Your task to perform on an android device: create a new album in the google photos Image 0: 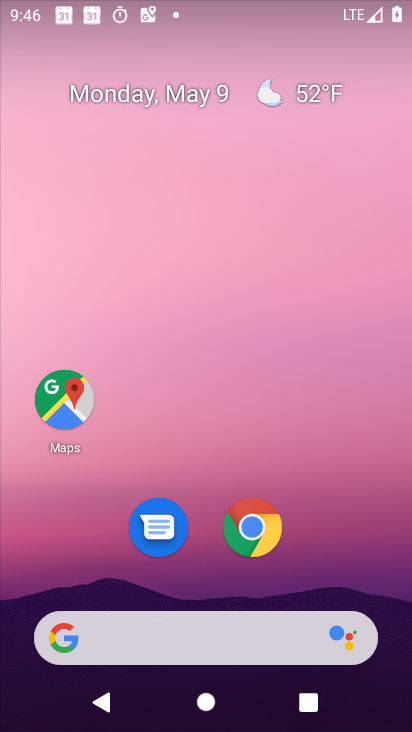
Step 0: drag from (358, 534) to (347, 145)
Your task to perform on an android device: create a new album in the google photos Image 1: 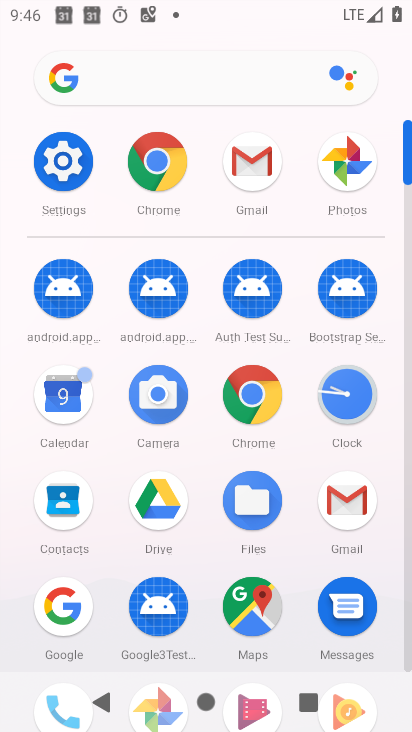
Step 1: drag from (200, 584) to (219, 352)
Your task to perform on an android device: create a new album in the google photos Image 2: 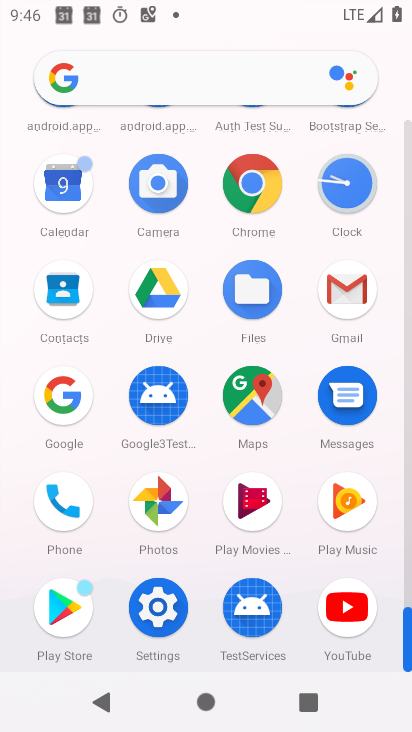
Step 2: click (169, 509)
Your task to perform on an android device: create a new album in the google photos Image 3: 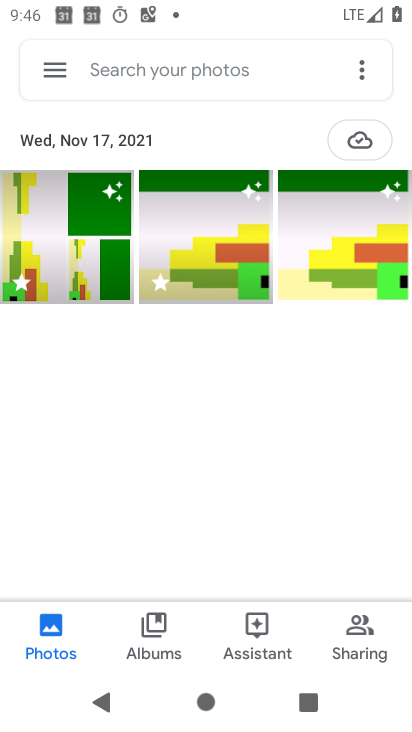
Step 3: click (149, 641)
Your task to perform on an android device: create a new album in the google photos Image 4: 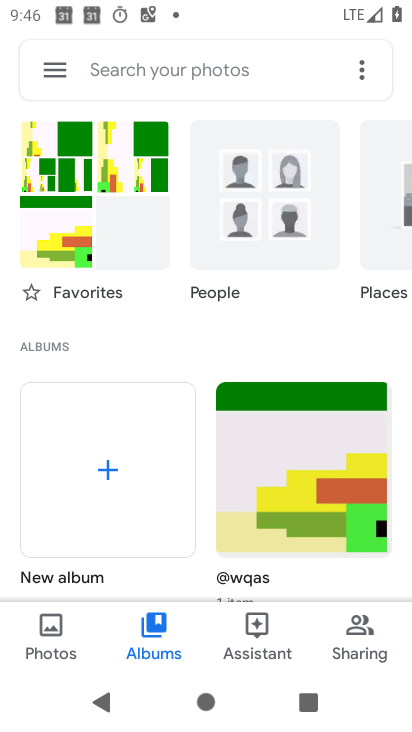
Step 4: click (99, 484)
Your task to perform on an android device: create a new album in the google photos Image 5: 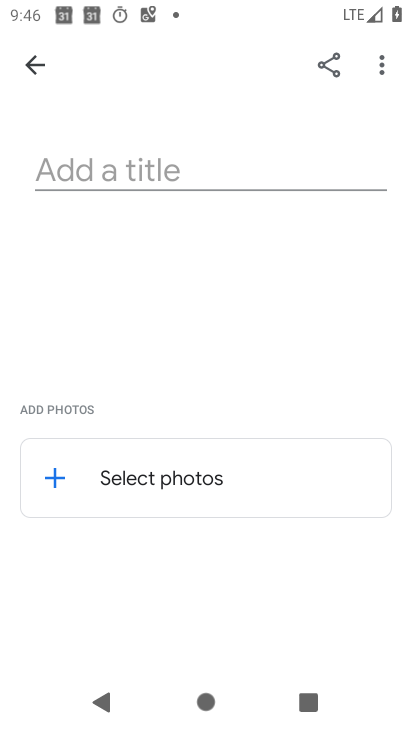
Step 5: click (128, 160)
Your task to perform on an android device: create a new album in the google photos Image 6: 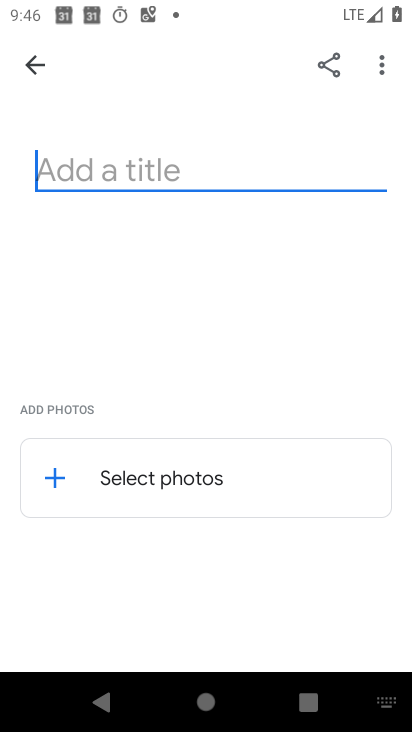
Step 6: type "temple"
Your task to perform on an android device: create a new album in the google photos Image 7: 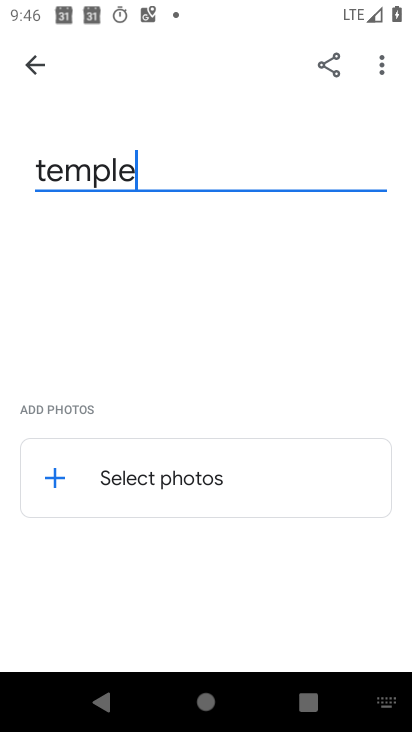
Step 7: click (38, 481)
Your task to perform on an android device: create a new album in the google photos Image 8: 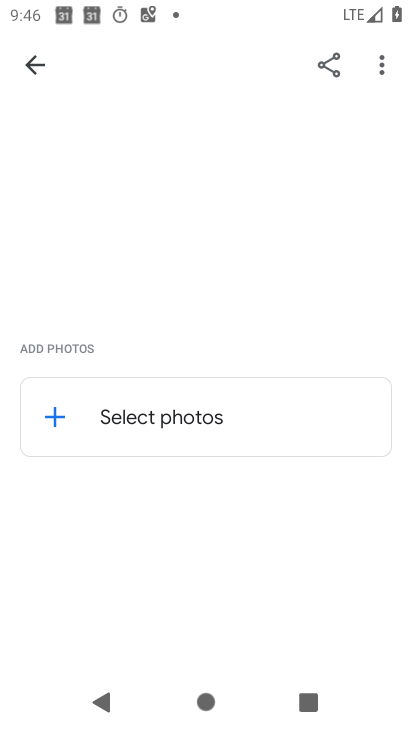
Step 8: click (57, 417)
Your task to perform on an android device: create a new album in the google photos Image 9: 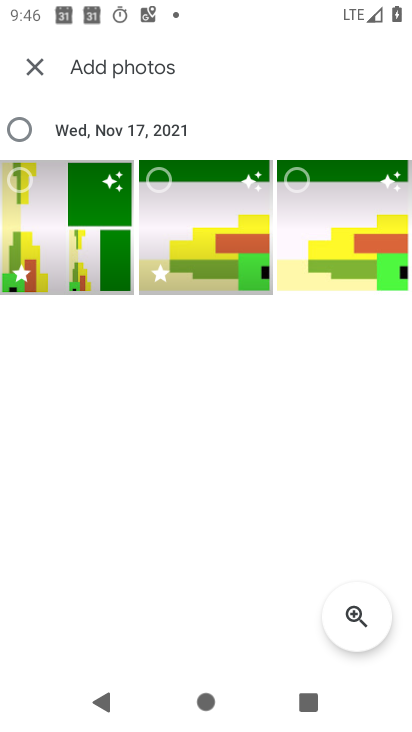
Step 9: click (18, 188)
Your task to perform on an android device: create a new album in the google photos Image 10: 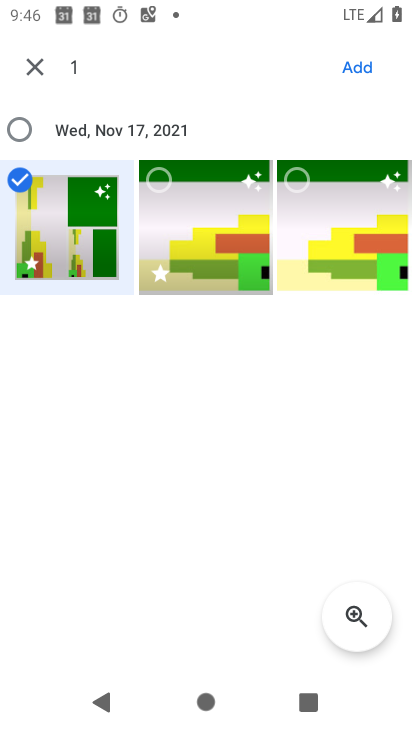
Step 10: click (372, 66)
Your task to perform on an android device: create a new album in the google photos Image 11: 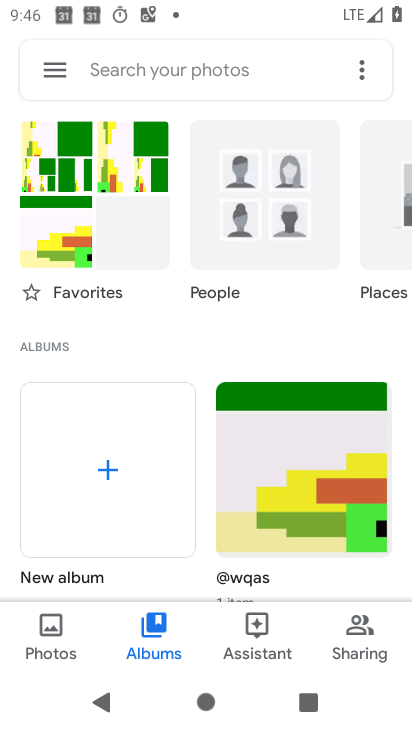
Step 11: click (115, 471)
Your task to perform on an android device: create a new album in the google photos Image 12: 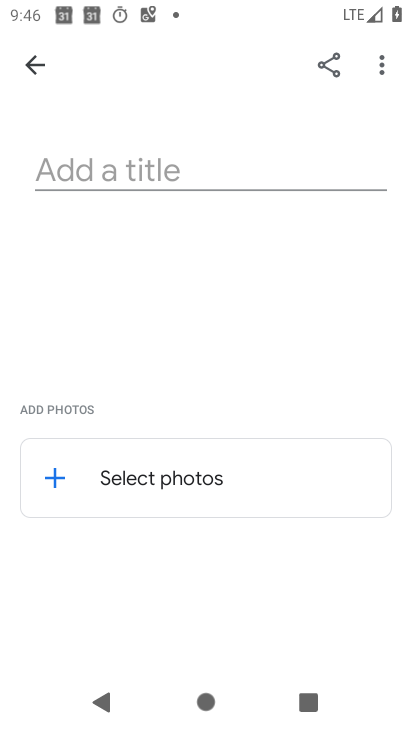
Step 12: click (149, 184)
Your task to perform on an android device: create a new album in the google photos Image 13: 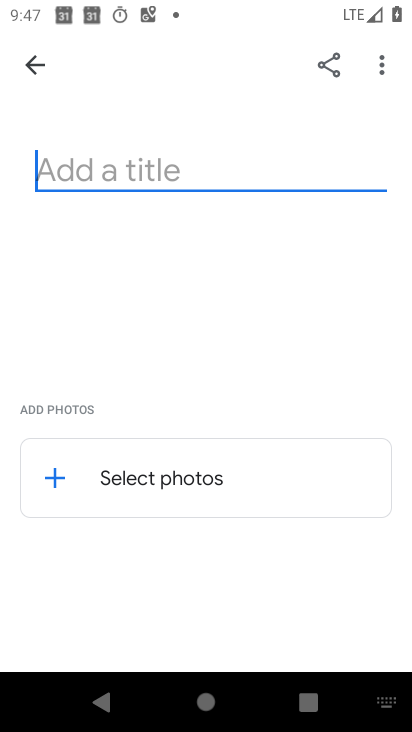
Step 13: type "temple"
Your task to perform on an android device: create a new album in the google photos Image 14: 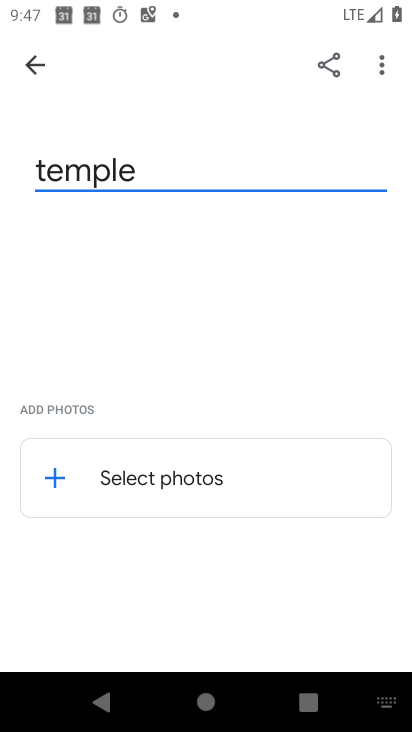
Step 14: click (46, 482)
Your task to perform on an android device: create a new album in the google photos Image 15: 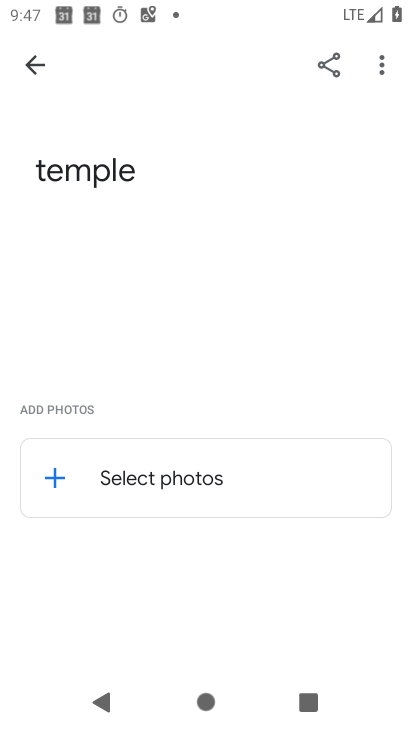
Step 15: click (52, 479)
Your task to perform on an android device: create a new album in the google photos Image 16: 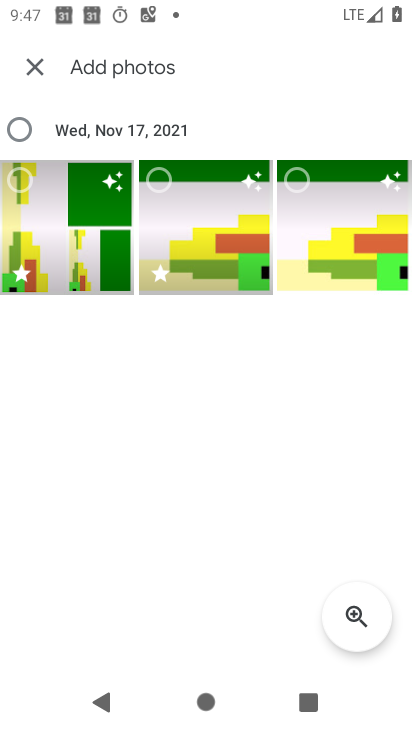
Step 16: click (24, 186)
Your task to perform on an android device: create a new album in the google photos Image 17: 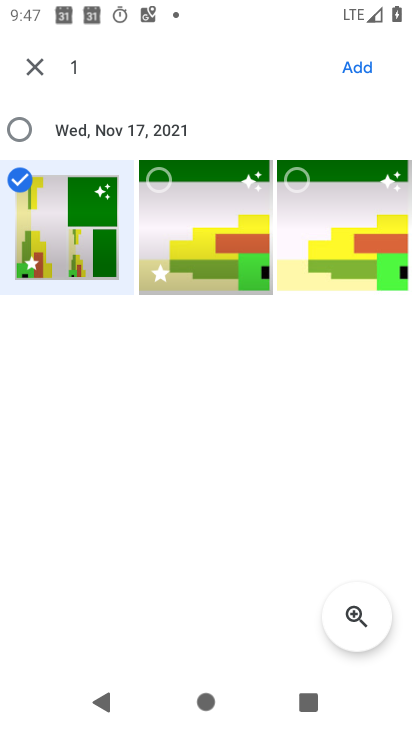
Step 17: task complete